Your task to perform on an android device: turn off notifications in google photos Image 0: 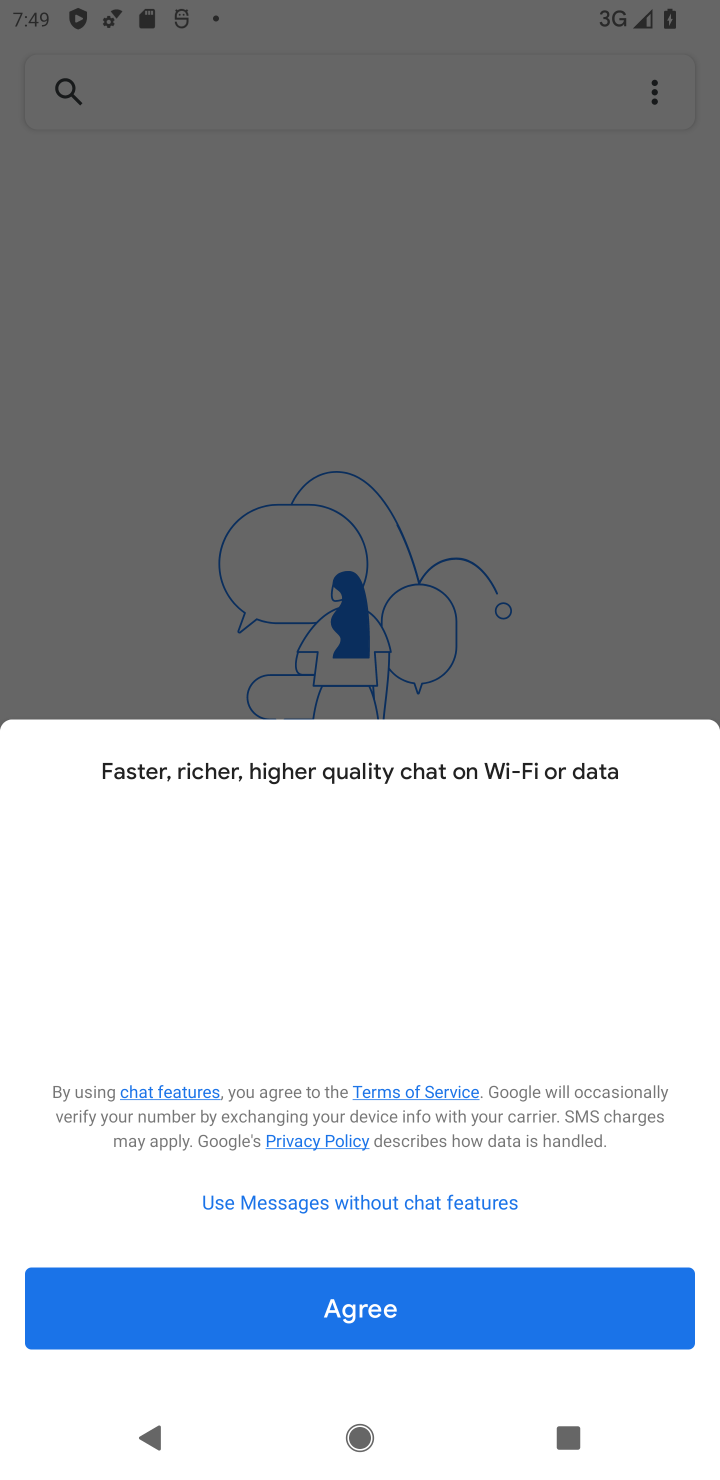
Step 0: press home button
Your task to perform on an android device: turn off notifications in google photos Image 1: 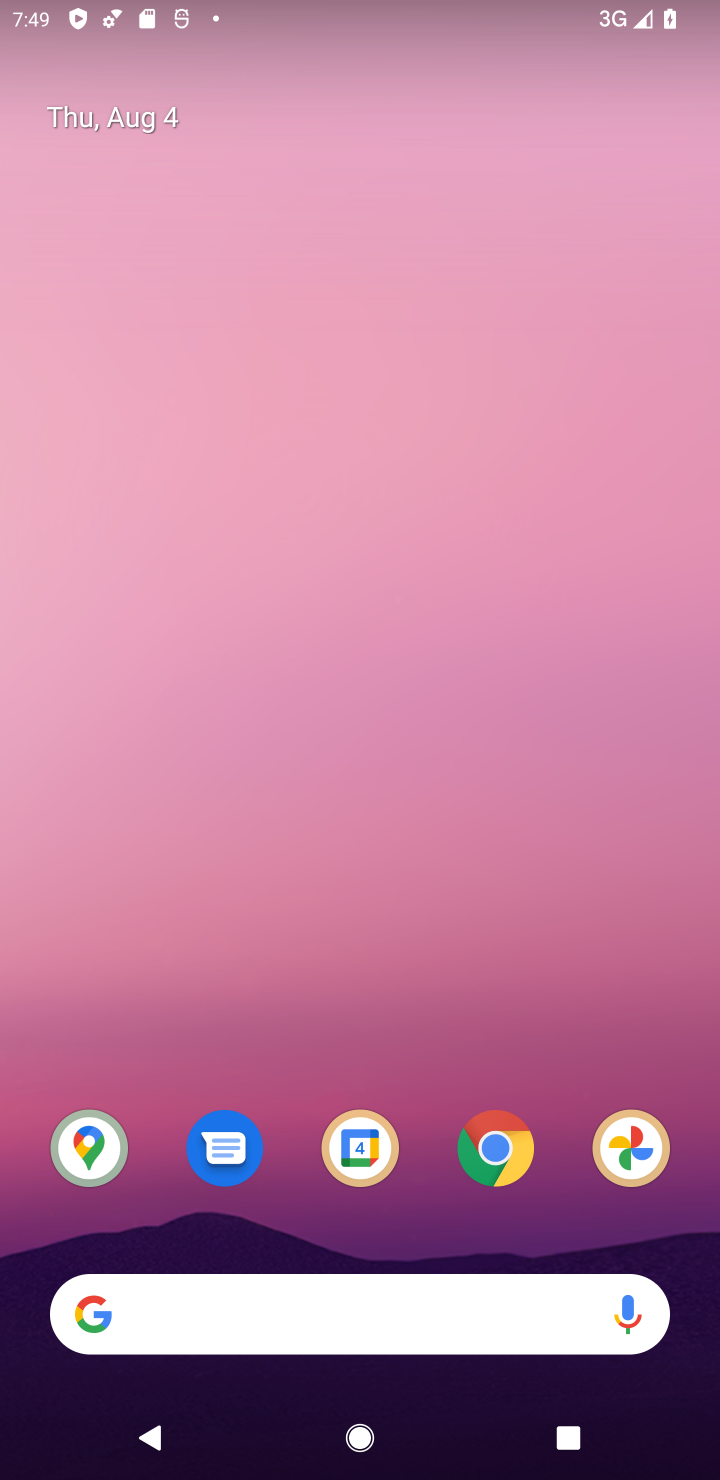
Step 1: drag from (561, 1078) to (344, 95)
Your task to perform on an android device: turn off notifications in google photos Image 2: 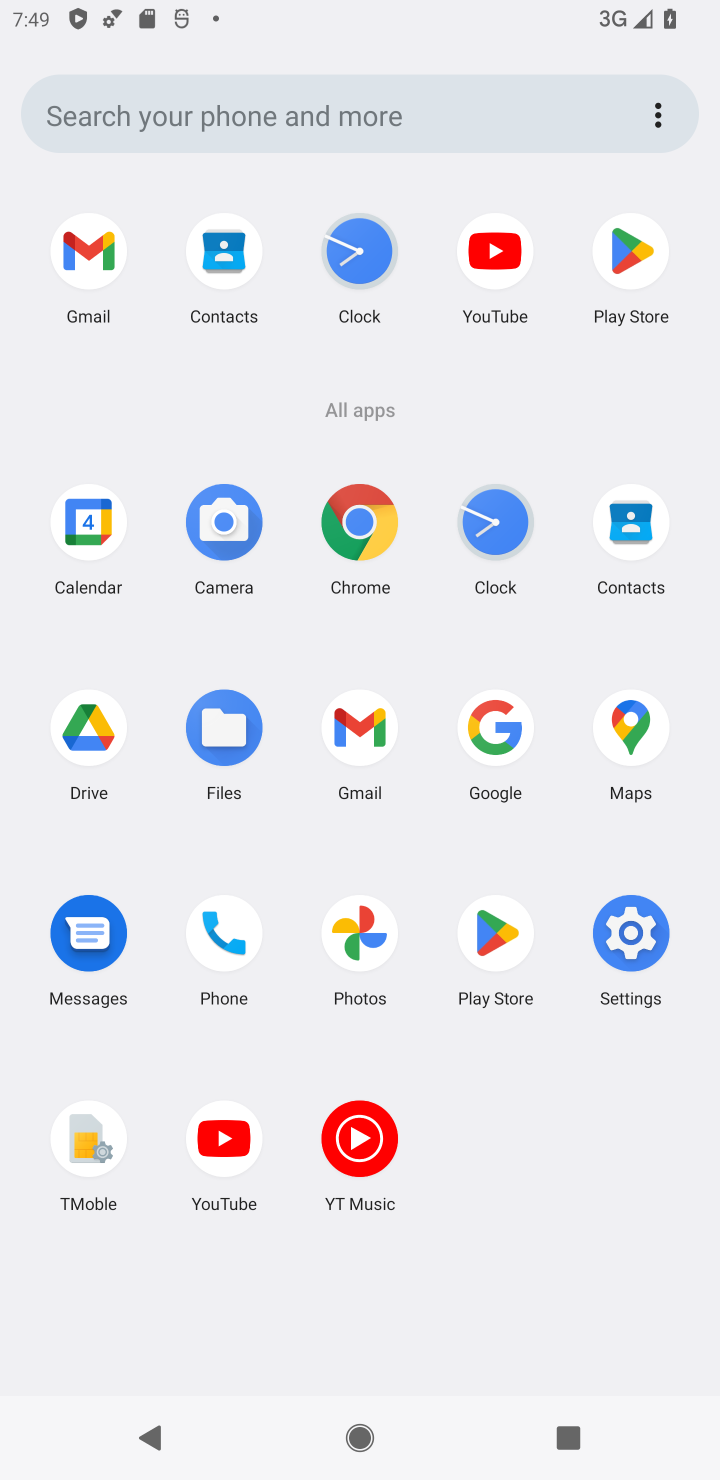
Step 2: click (338, 928)
Your task to perform on an android device: turn off notifications in google photos Image 3: 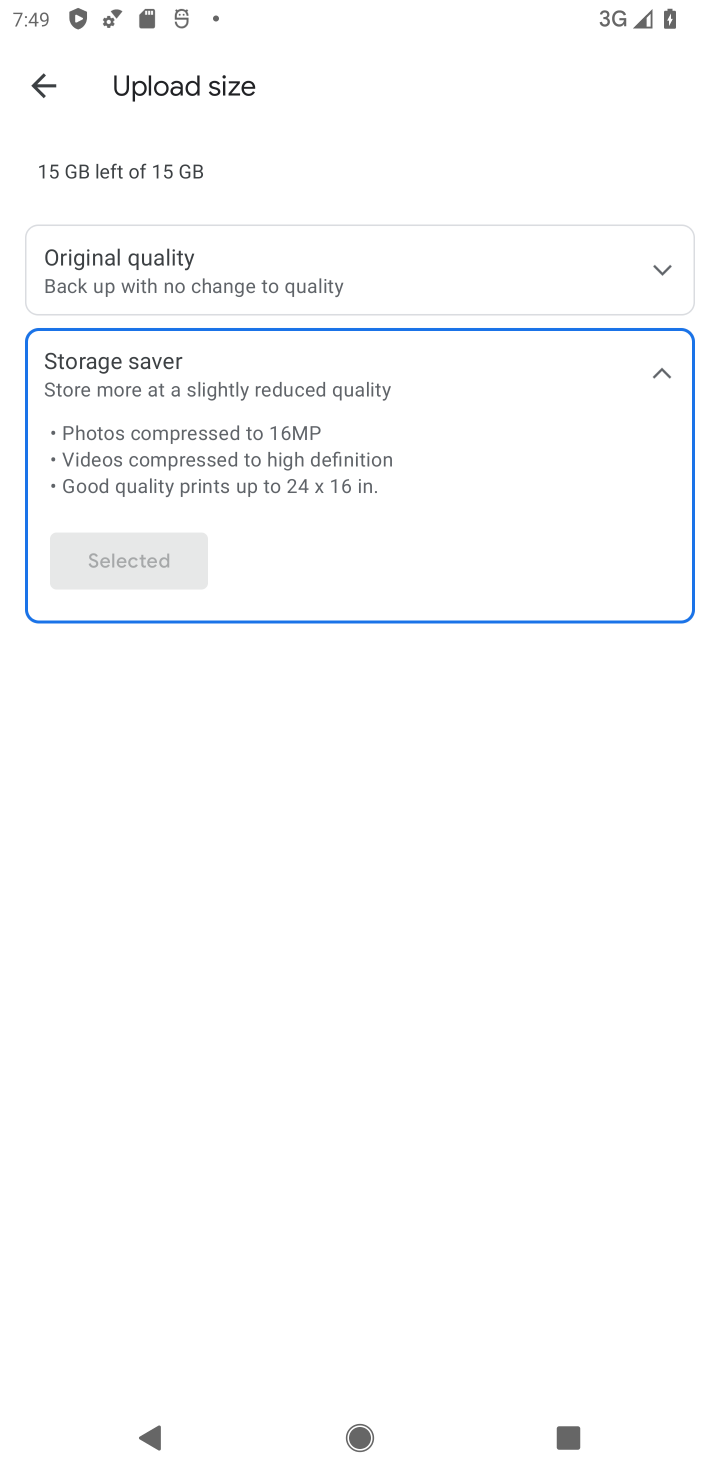
Step 3: click (53, 85)
Your task to perform on an android device: turn off notifications in google photos Image 4: 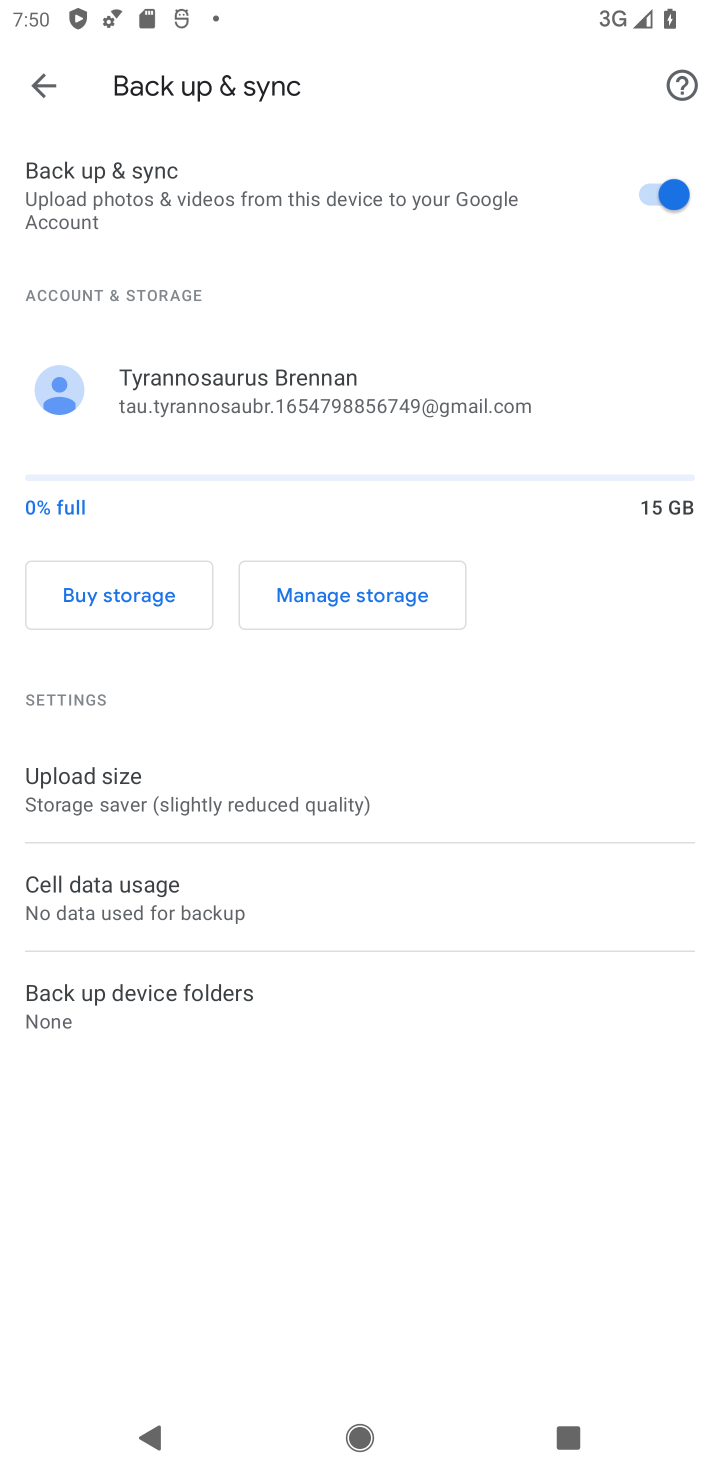
Step 4: click (36, 86)
Your task to perform on an android device: turn off notifications in google photos Image 5: 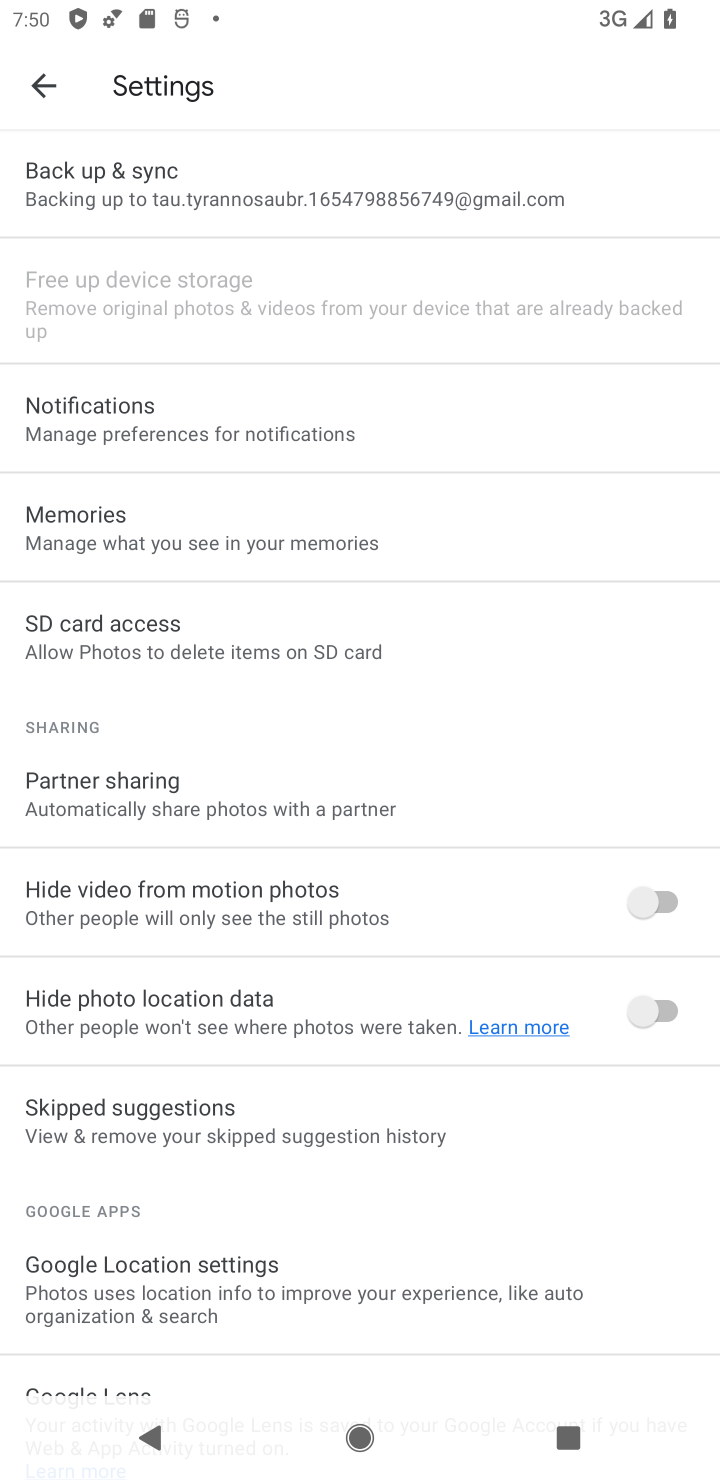
Step 5: click (316, 443)
Your task to perform on an android device: turn off notifications in google photos Image 6: 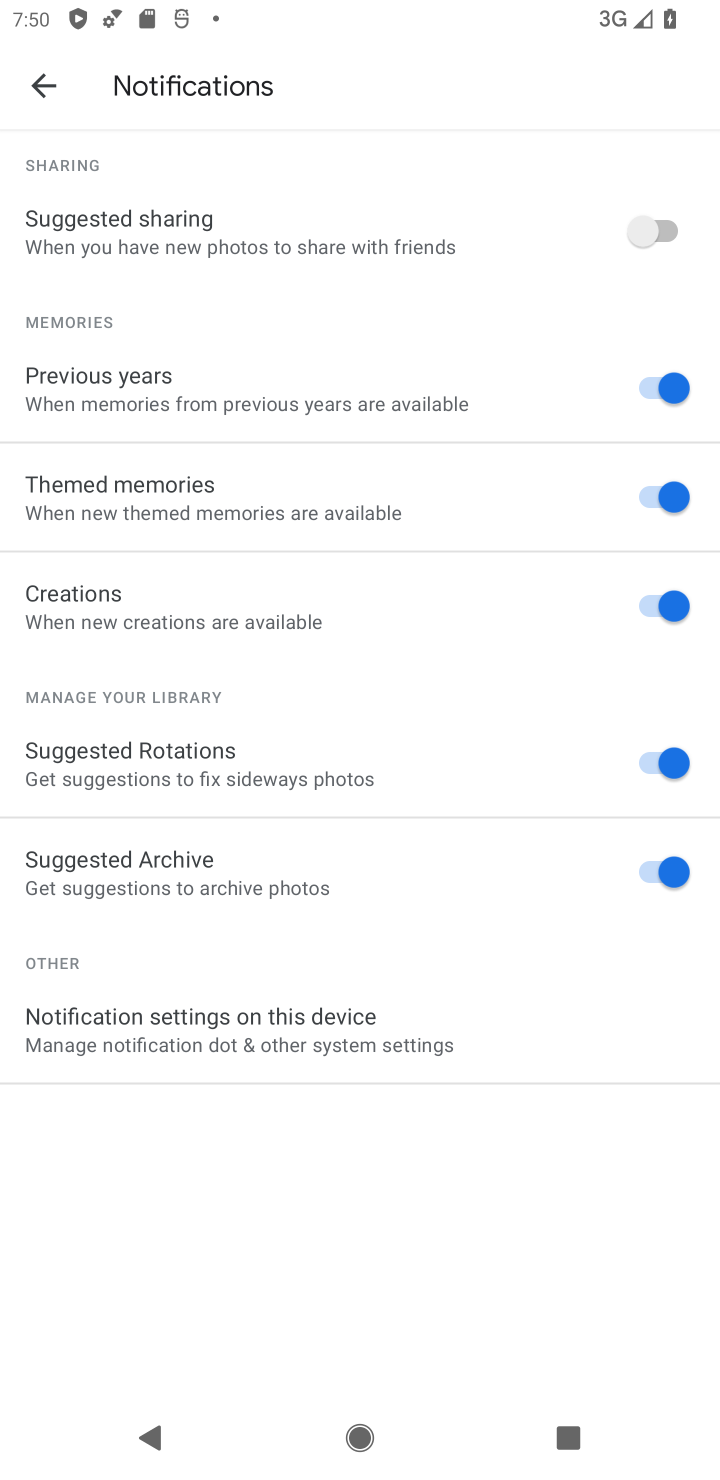
Step 6: click (583, 1022)
Your task to perform on an android device: turn off notifications in google photos Image 7: 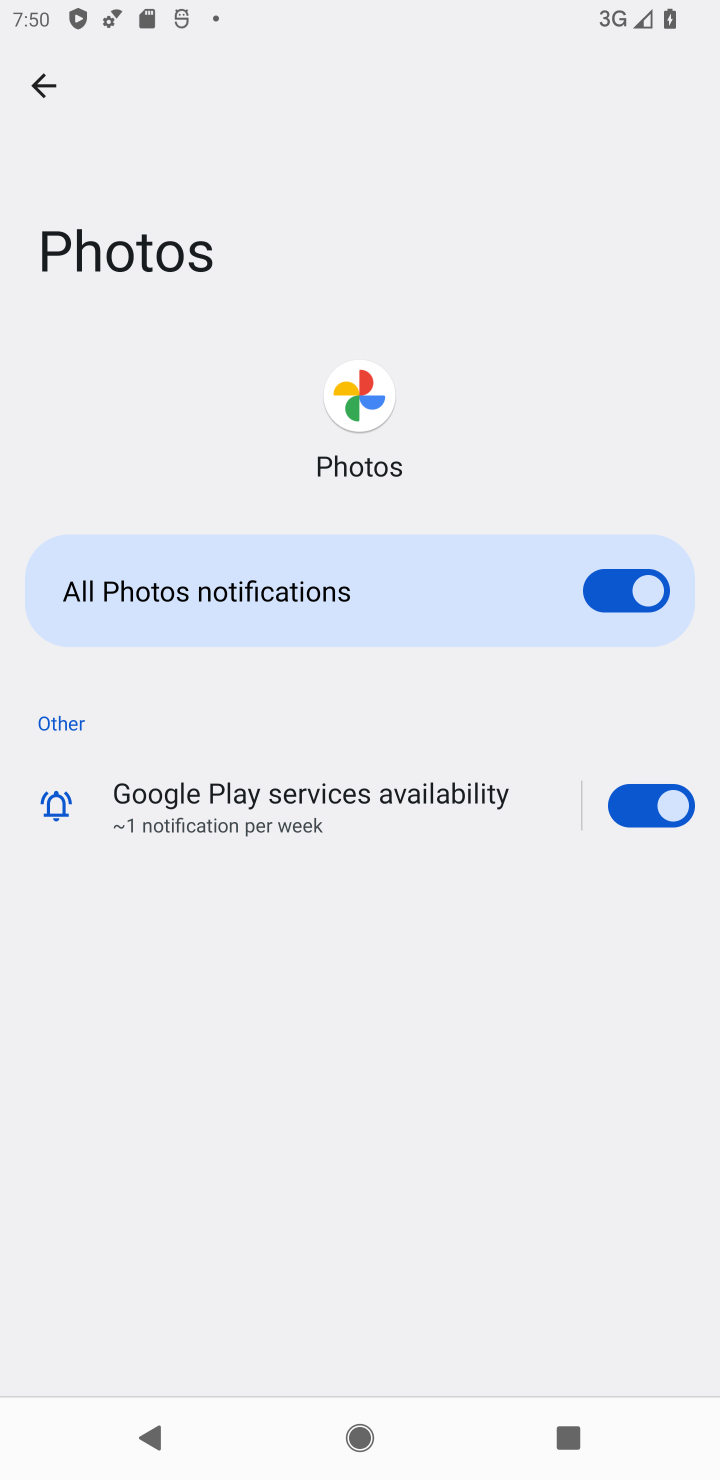
Step 7: click (658, 568)
Your task to perform on an android device: turn off notifications in google photos Image 8: 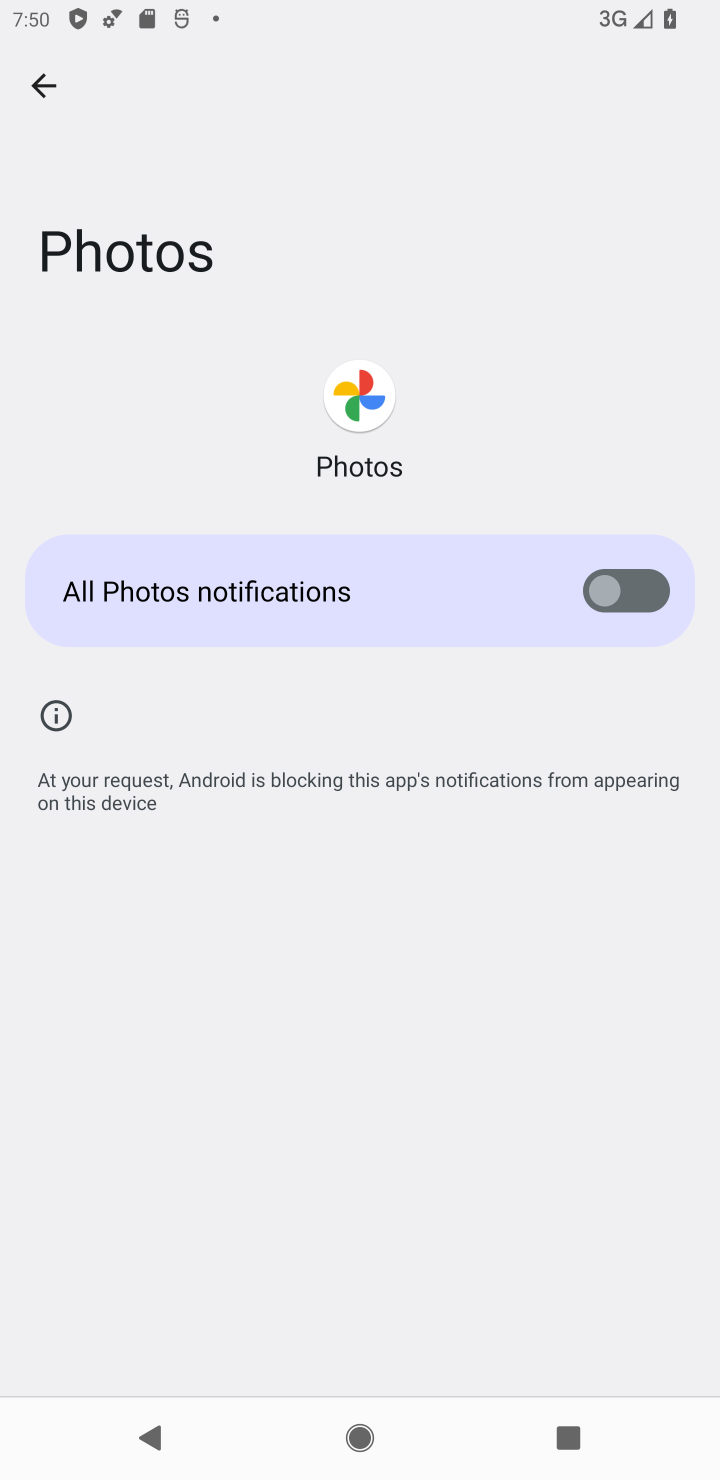
Step 8: task complete